Your task to perform on an android device: Open CNN.com Image 0: 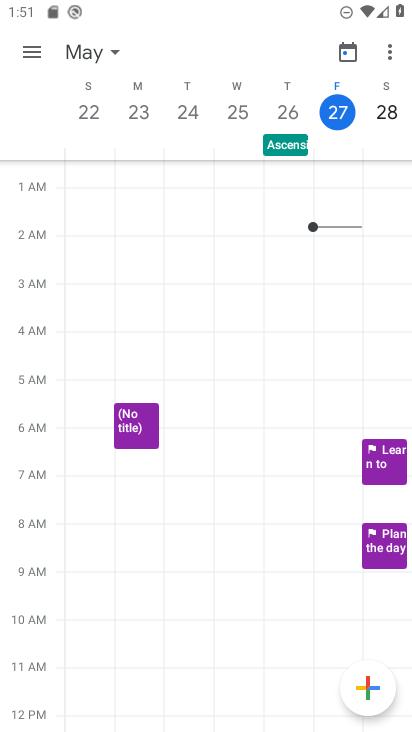
Step 0: press home button
Your task to perform on an android device: Open CNN.com Image 1: 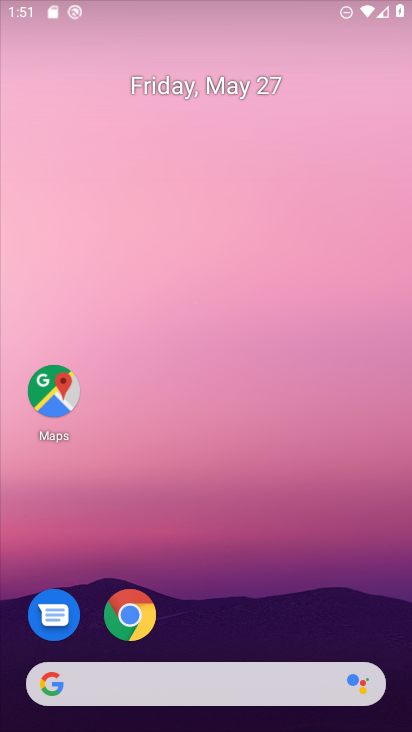
Step 1: drag from (204, 636) to (242, 171)
Your task to perform on an android device: Open CNN.com Image 2: 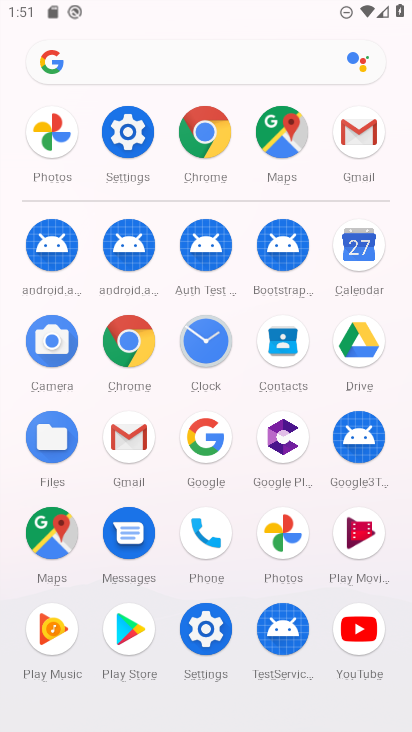
Step 2: click (122, 351)
Your task to perform on an android device: Open CNN.com Image 3: 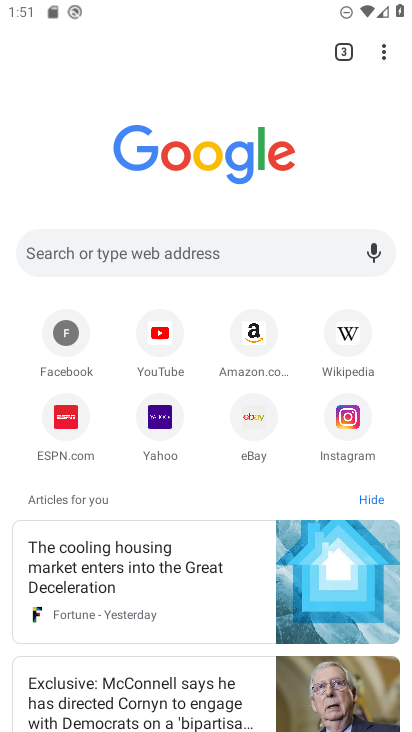
Step 3: click (188, 255)
Your task to perform on an android device: Open CNN.com Image 4: 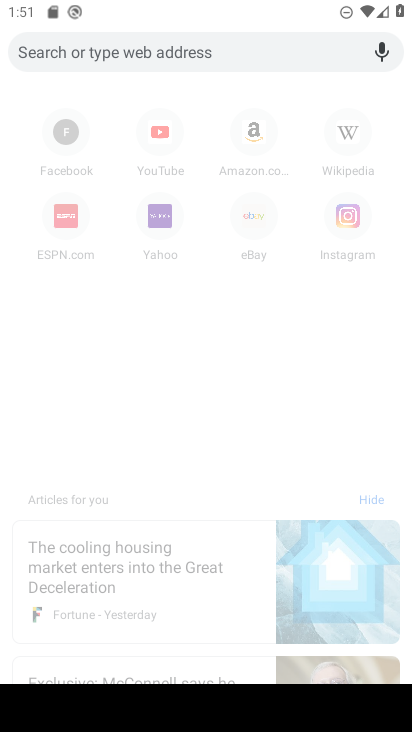
Step 4: type "cnn.com"
Your task to perform on an android device: Open CNN.com Image 5: 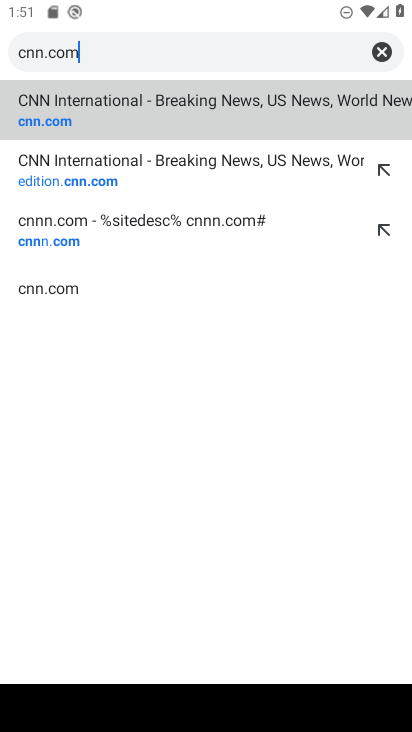
Step 5: type ""
Your task to perform on an android device: Open CNN.com Image 6: 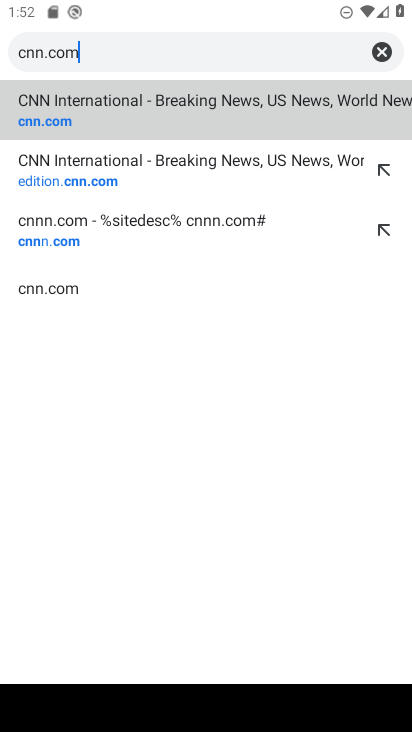
Step 6: click (74, 123)
Your task to perform on an android device: Open CNN.com Image 7: 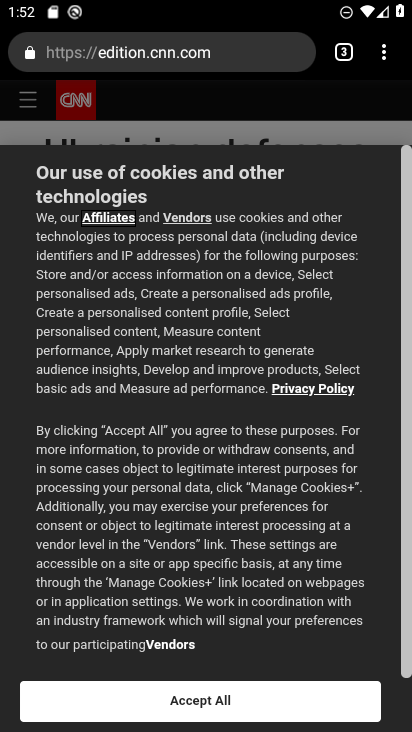
Step 7: click (194, 711)
Your task to perform on an android device: Open CNN.com Image 8: 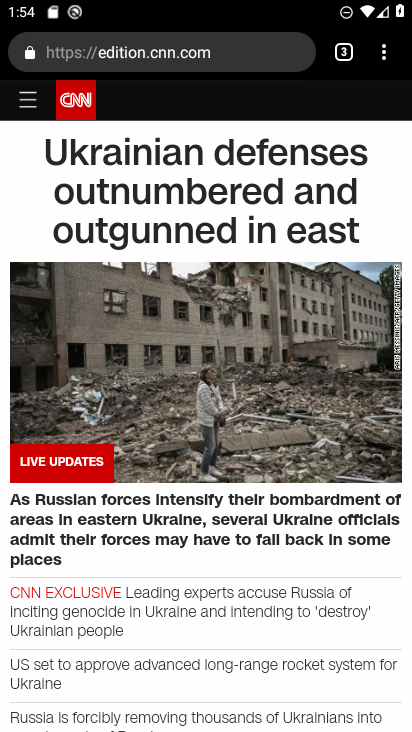
Step 8: task complete